Your task to perform on an android device: Open calendar and show me the second week of next month Image 0: 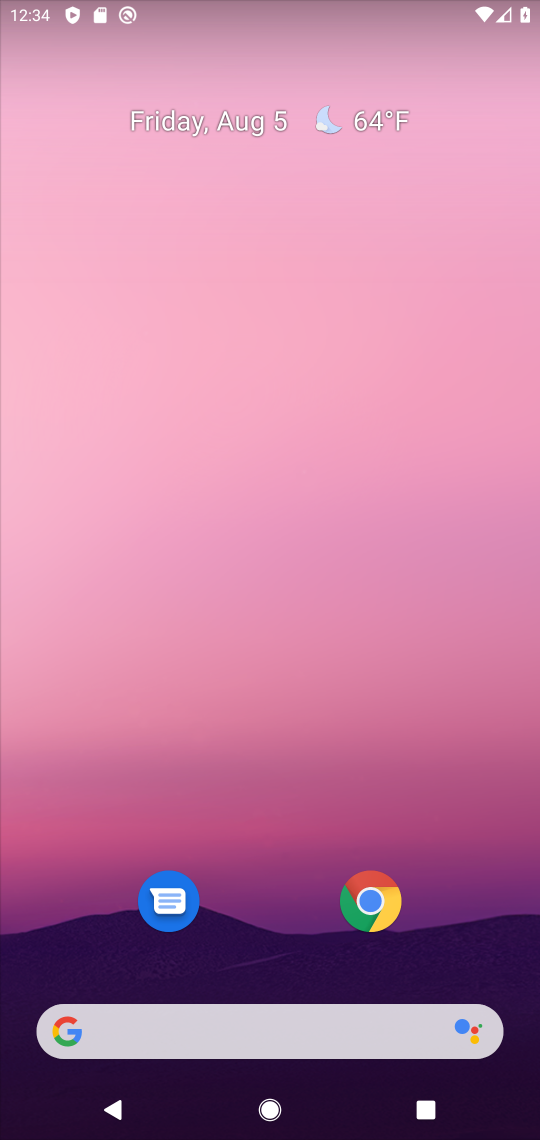
Step 0: drag from (297, 848) to (419, 14)
Your task to perform on an android device: Open calendar and show me the second week of next month Image 1: 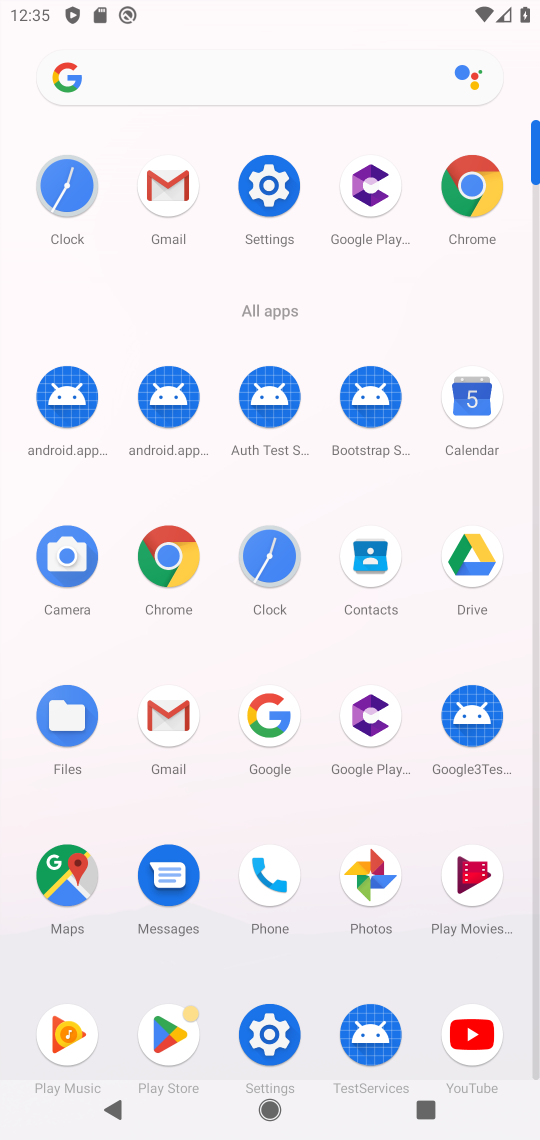
Step 1: click (474, 427)
Your task to perform on an android device: Open calendar and show me the second week of next month Image 2: 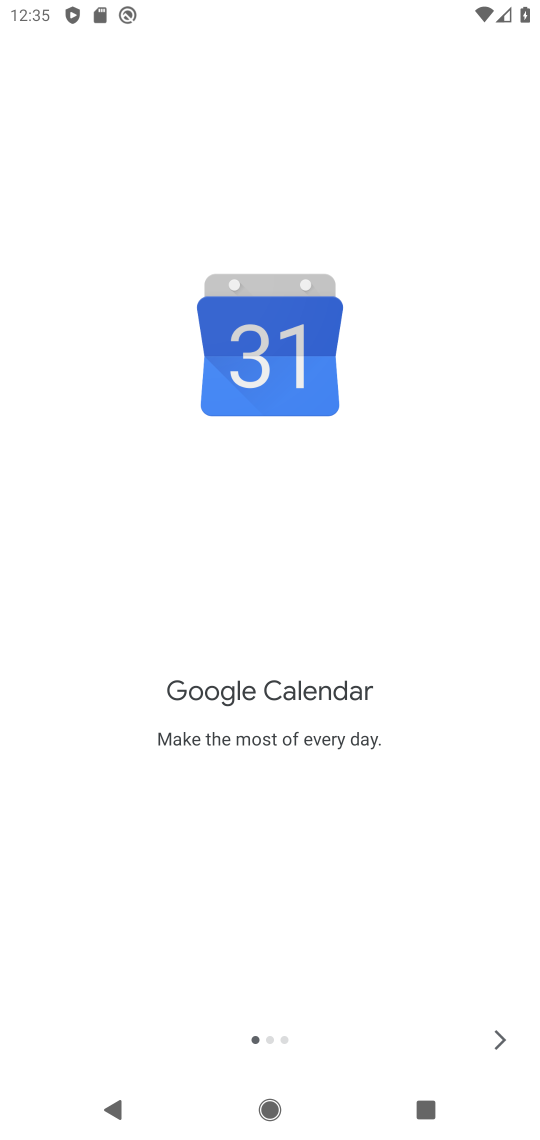
Step 2: click (491, 1032)
Your task to perform on an android device: Open calendar and show me the second week of next month Image 3: 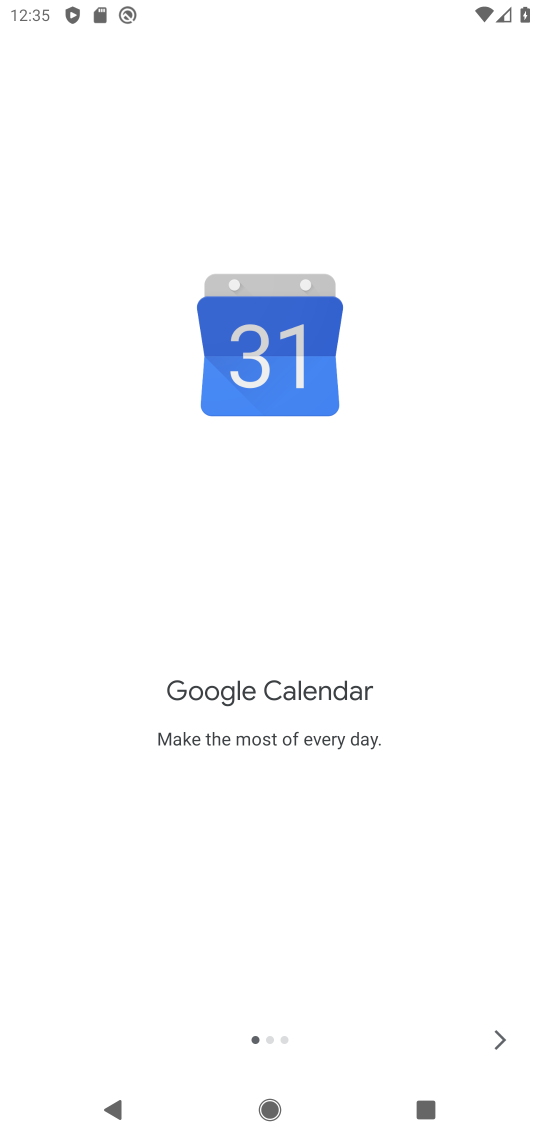
Step 3: click (491, 1032)
Your task to perform on an android device: Open calendar and show me the second week of next month Image 4: 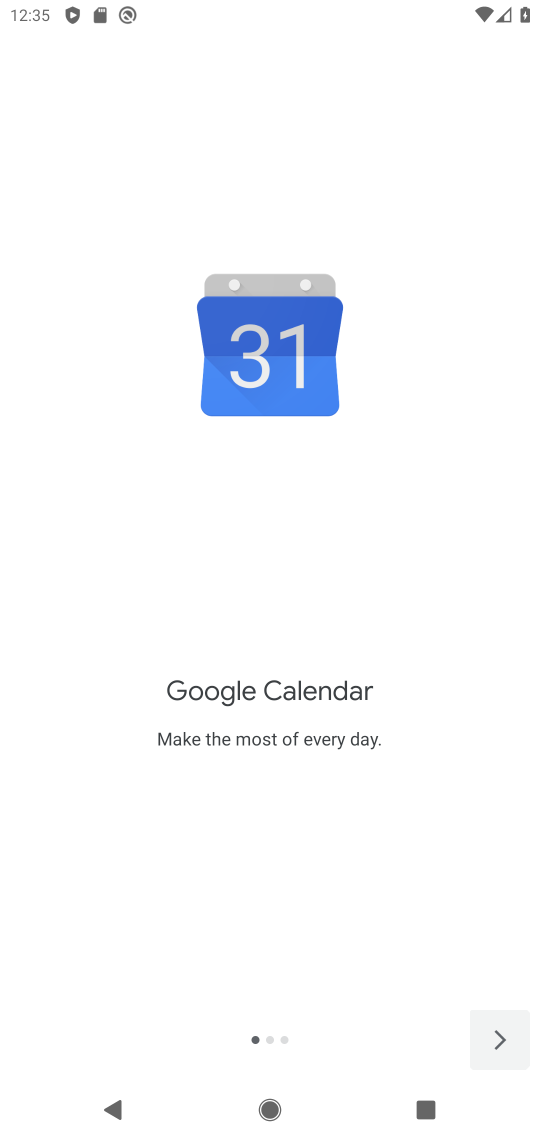
Step 4: click (491, 1032)
Your task to perform on an android device: Open calendar and show me the second week of next month Image 5: 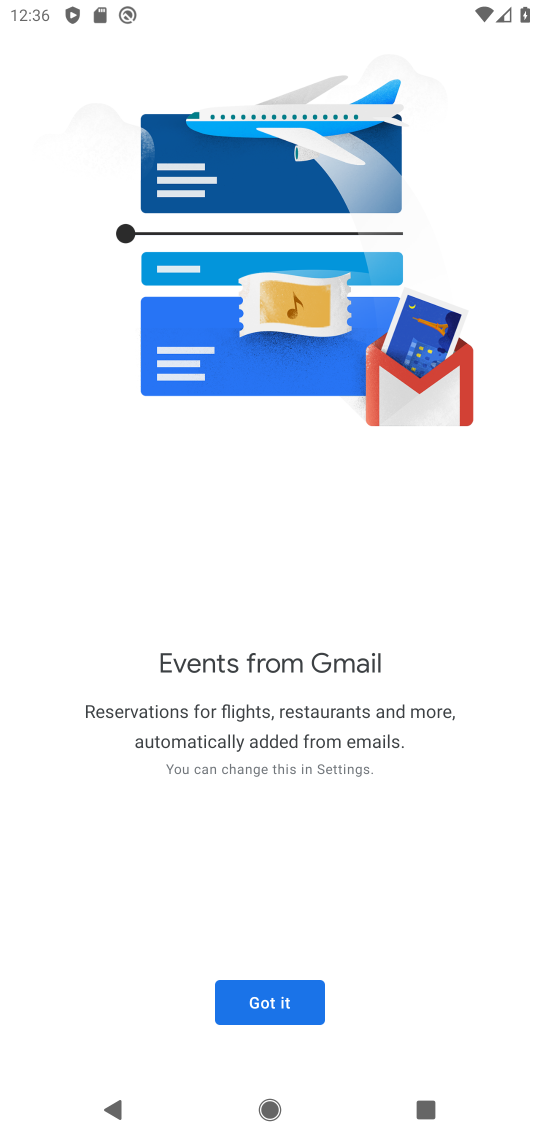
Step 5: click (257, 1010)
Your task to perform on an android device: Open calendar and show me the second week of next month Image 6: 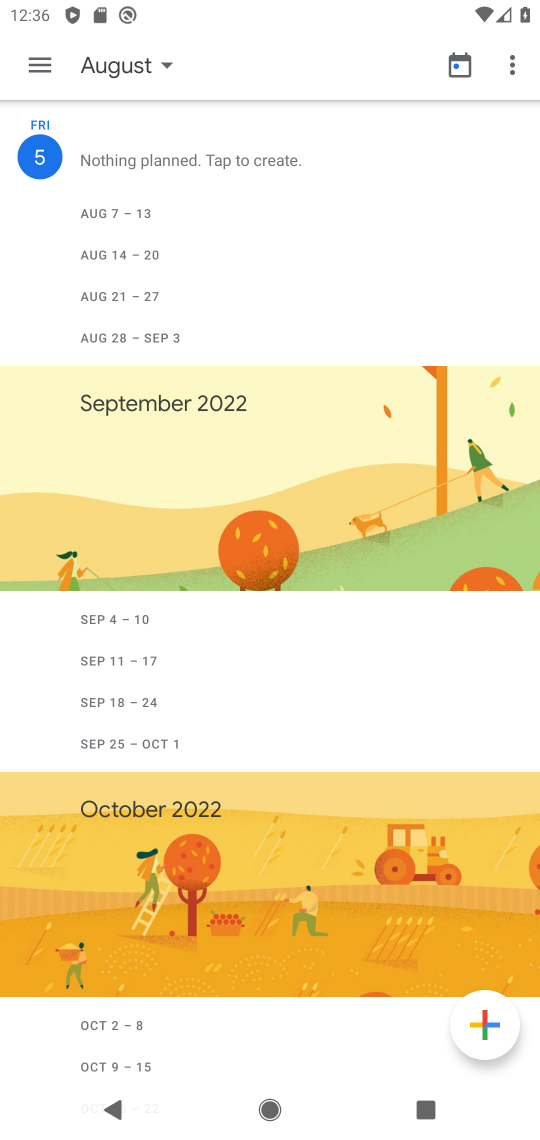
Step 6: click (31, 55)
Your task to perform on an android device: Open calendar and show me the second week of next month Image 7: 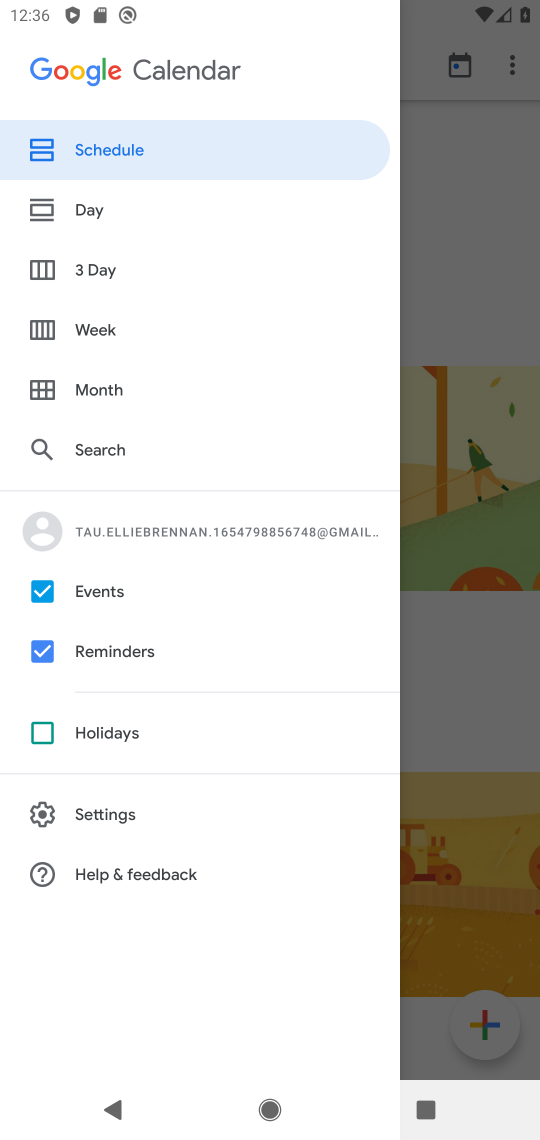
Step 7: click (452, 484)
Your task to perform on an android device: Open calendar and show me the second week of next month Image 8: 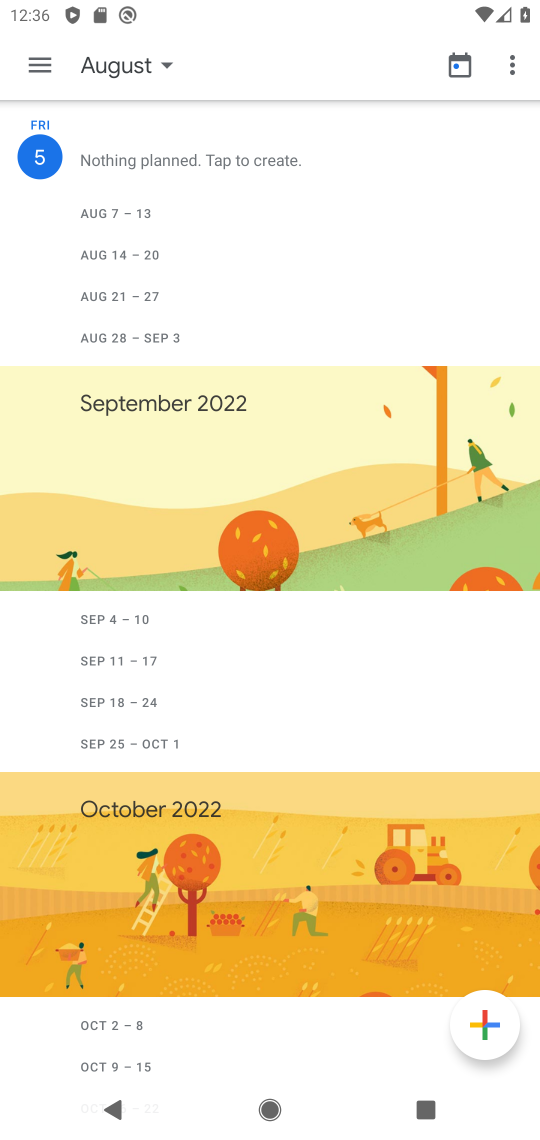
Step 8: click (107, 696)
Your task to perform on an android device: Open calendar and show me the second week of next month Image 9: 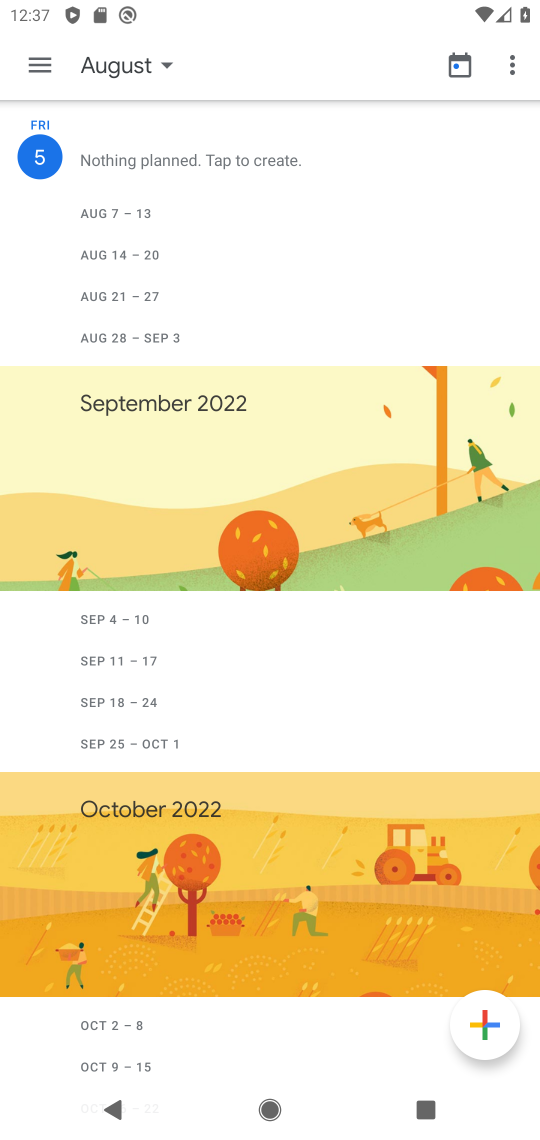
Step 9: task complete